Your task to perform on an android device: Open settings Image 0: 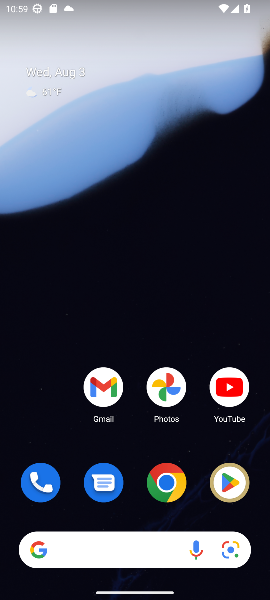
Step 0: click (146, 527)
Your task to perform on an android device: Open settings Image 1: 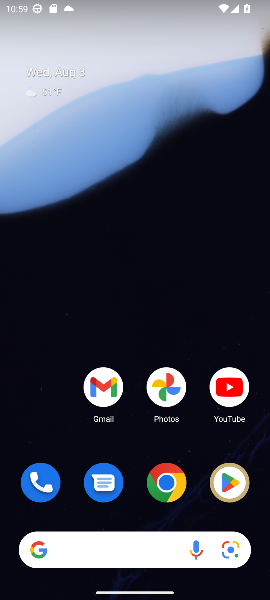
Step 1: drag from (146, 527) to (84, 119)
Your task to perform on an android device: Open settings Image 2: 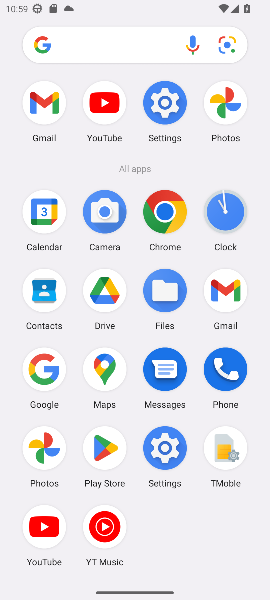
Step 2: click (173, 465)
Your task to perform on an android device: Open settings Image 3: 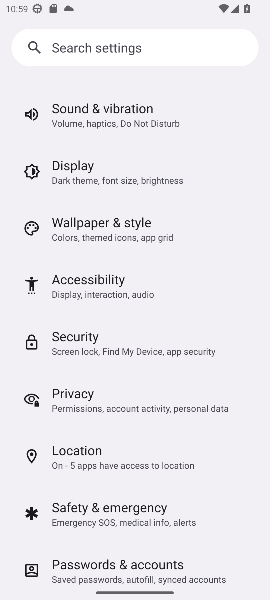
Step 3: task complete